Your task to perform on an android device: turn off data saver in the chrome app Image 0: 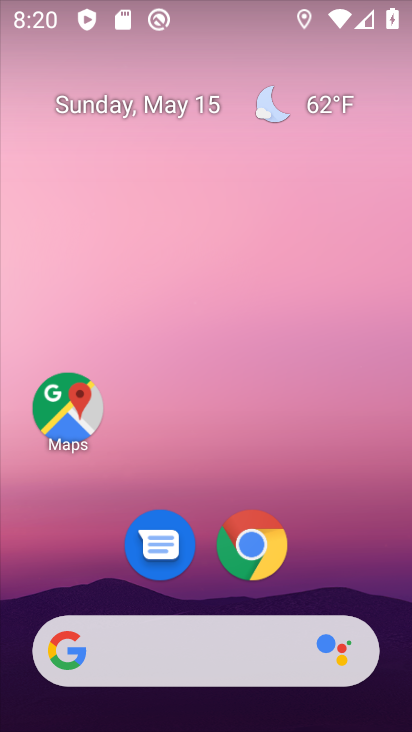
Step 0: click (239, 554)
Your task to perform on an android device: turn off data saver in the chrome app Image 1: 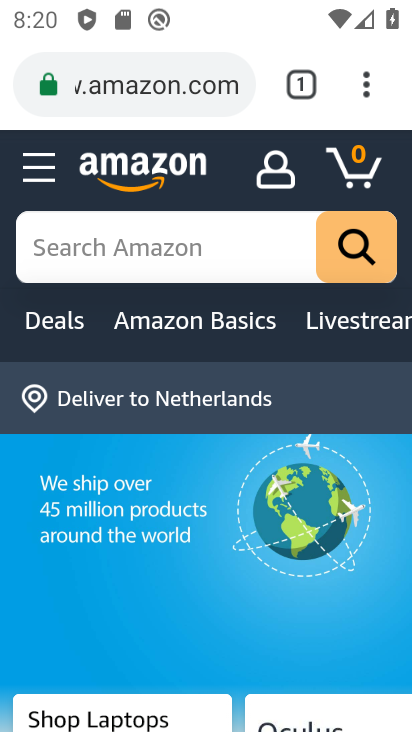
Step 1: click (368, 89)
Your task to perform on an android device: turn off data saver in the chrome app Image 2: 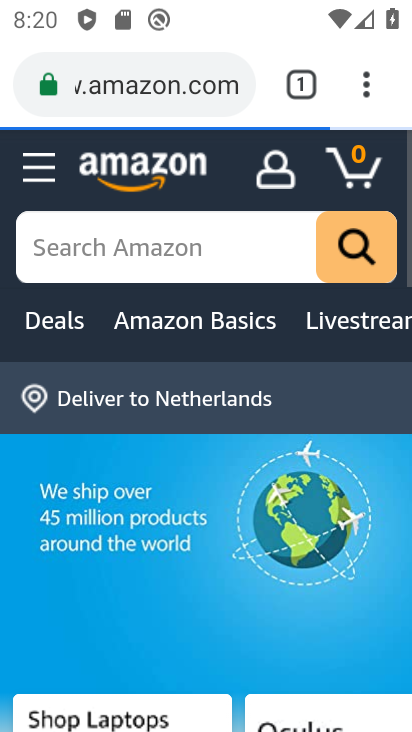
Step 2: click (367, 88)
Your task to perform on an android device: turn off data saver in the chrome app Image 3: 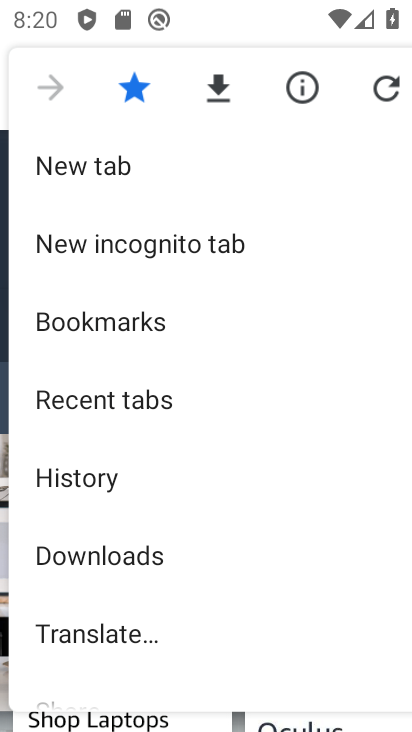
Step 3: drag from (135, 644) to (146, 427)
Your task to perform on an android device: turn off data saver in the chrome app Image 4: 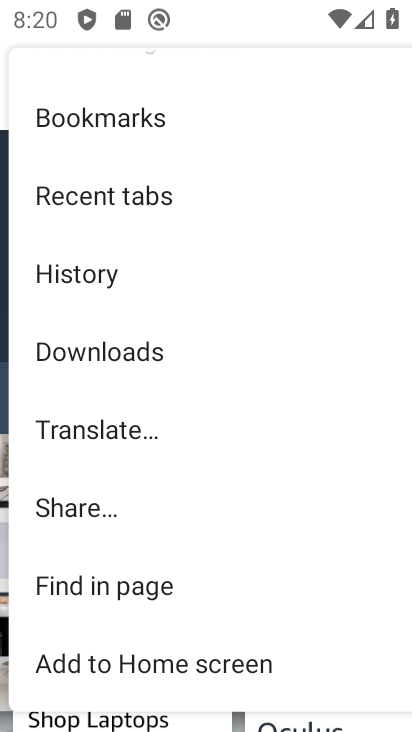
Step 4: drag from (178, 667) to (204, 393)
Your task to perform on an android device: turn off data saver in the chrome app Image 5: 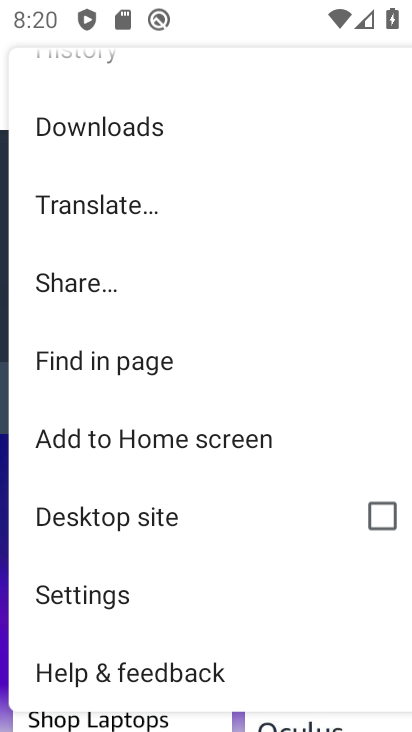
Step 5: click (108, 605)
Your task to perform on an android device: turn off data saver in the chrome app Image 6: 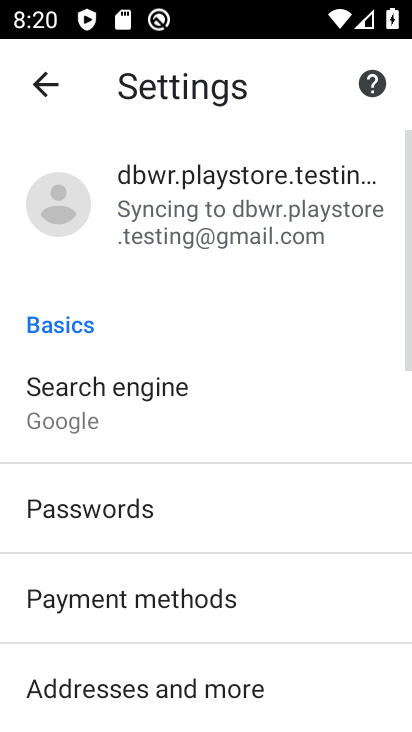
Step 6: drag from (150, 661) to (227, 340)
Your task to perform on an android device: turn off data saver in the chrome app Image 7: 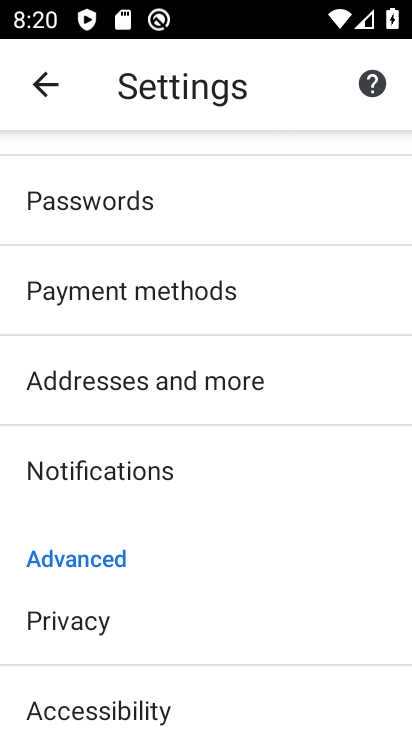
Step 7: drag from (191, 670) to (228, 384)
Your task to perform on an android device: turn off data saver in the chrome app Image 8: 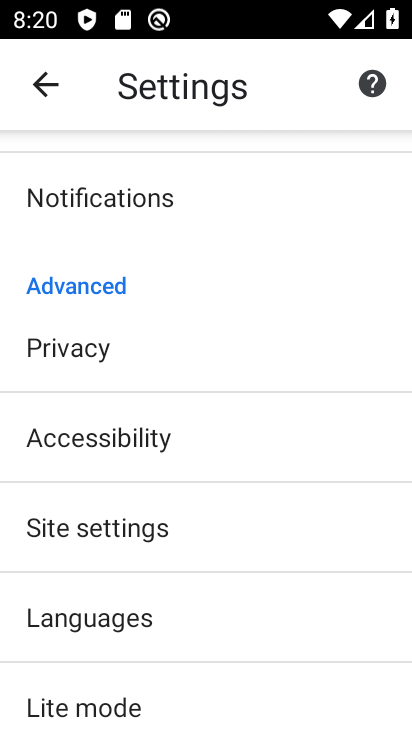
Step 8: drag from (178, 702) to (190, 458)
Your task to perform on an android device: turn off data saver in the chrome app Image 9: 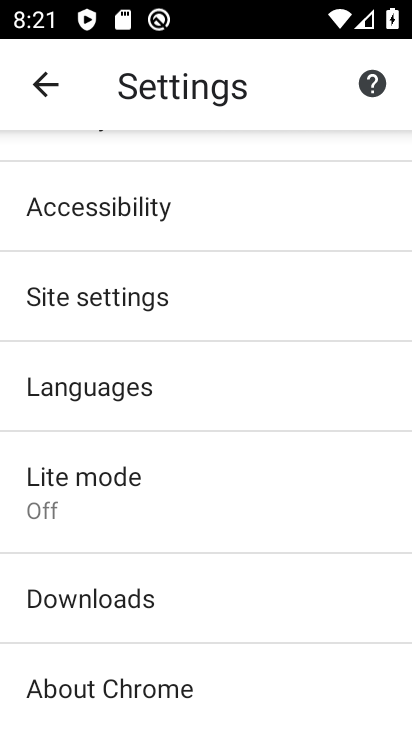
Step 9: click (107, 524)
Your task to perform on an android device: turn off data saver in the chrome app Image 10: 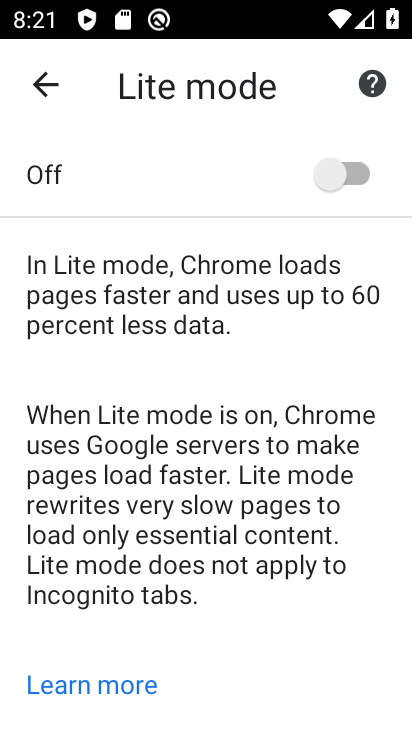
Step 10: task complete